Your task to perform on an android device: Find coffee shops on Maps Image 0: 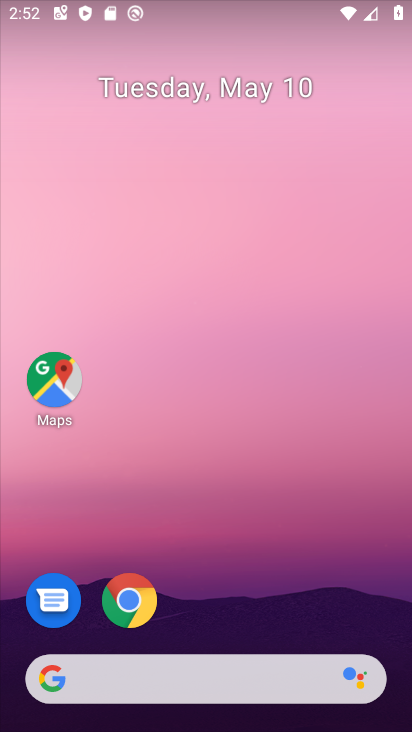
Step 0: drag from (199, 569) to (160, 67)
Your task to perform on an android device: Find coffee shops on Maps Image 1: 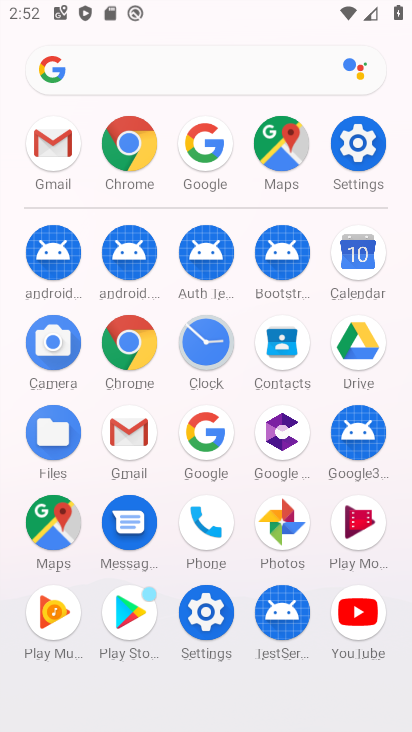
Step 1: click (62, 525)
Your task to perform on an android device: Find coffee shops on Maps Image 2: 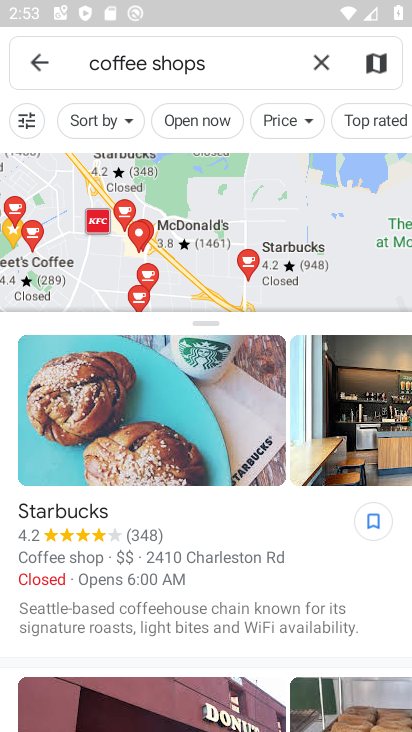
Step 2: task complete